Your task to perform on an android device: search for starred emails in the gmail app Image 0: 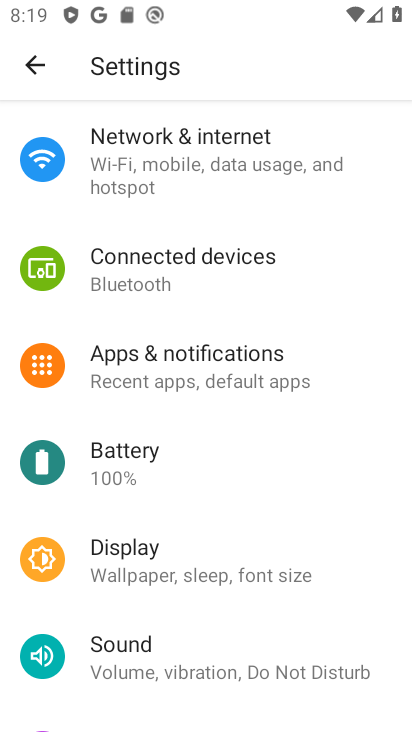
Step 0: press home button
Your task to perform on an android device: search for starred emails in the gmail app Image 1: 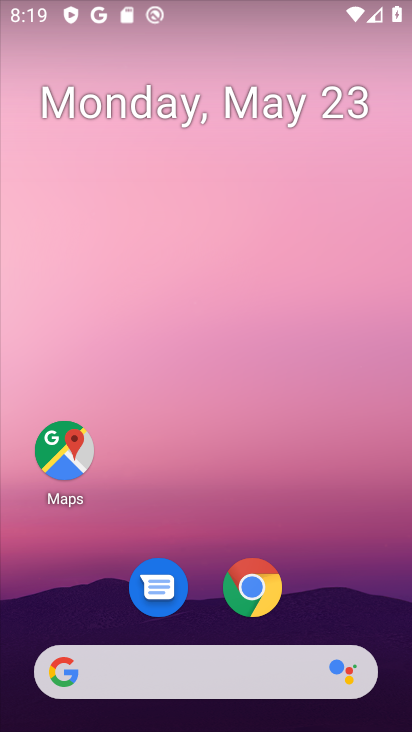
Step 1: drag from (169, 610) to (262, 64)
Your task to perform on an android device: search for starred emails in the gmail app Image 2: 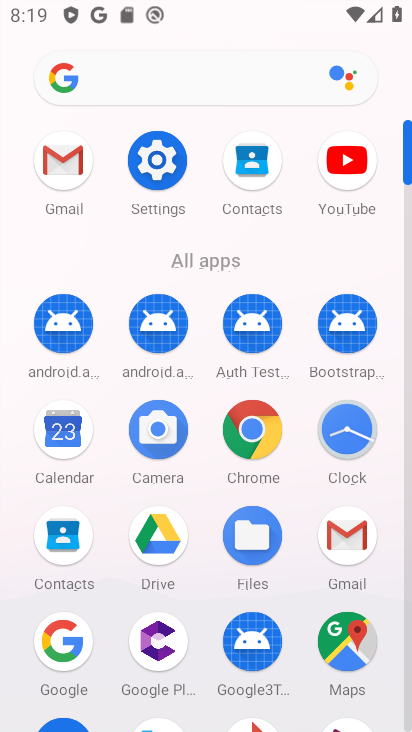
Step 2: click (59, 161)
Your task to perform on an android device: search for starred emails in the gmail app Image 3: 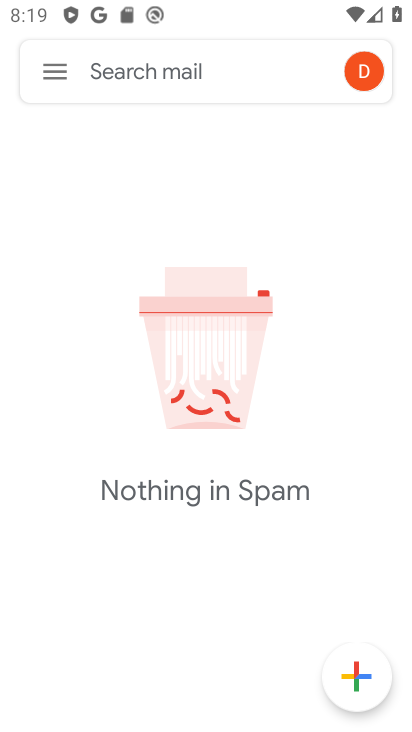
Step 3: click (49, 60)
Your task to perform on an android device: search for starred emails in the gmail app Image 4: 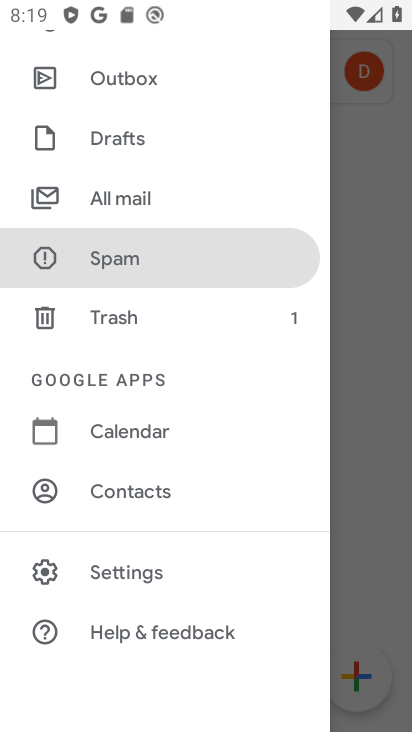
Step 4: drag from (157, 95) to (164, 552)
Your task to perform on an android device: search for starred emails in the gmail app Image 5: 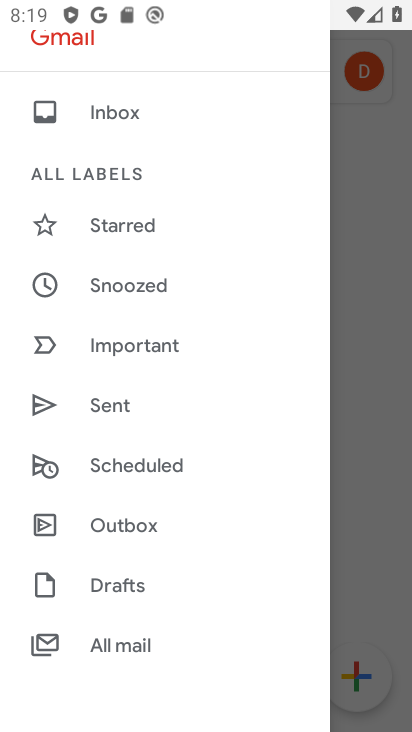
Step 5: click (113, 223)
Your task to perform on an android device: search for starred emails in the gmail app Image 6: 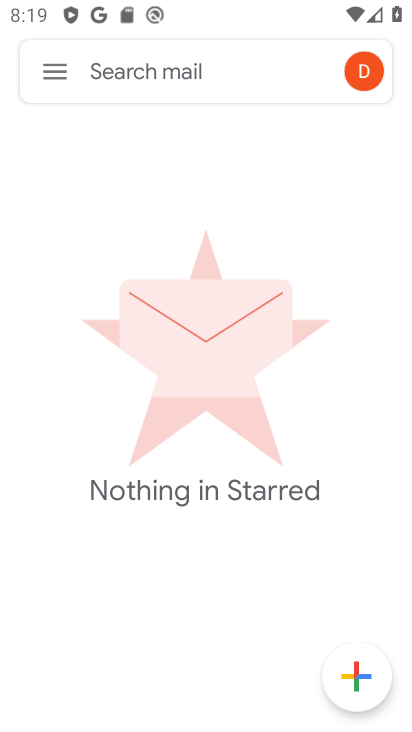
Step 6: task complete